Your task to perform on an android device: open sync settings in chrome Image 0: 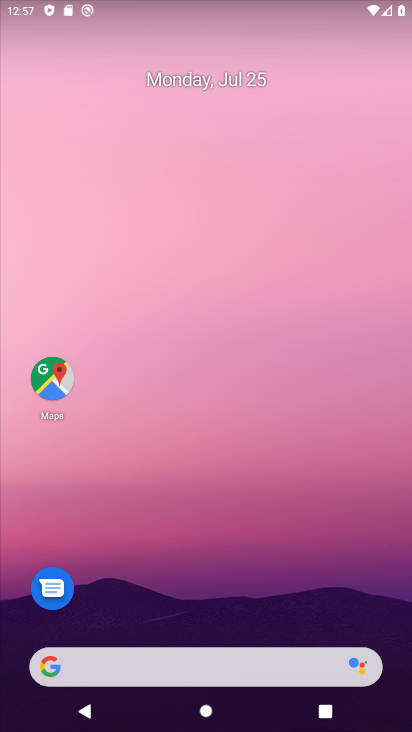
Step 0: click (297, 210)
Your task to perform on an android device: open sync settings in chrome Image 1: 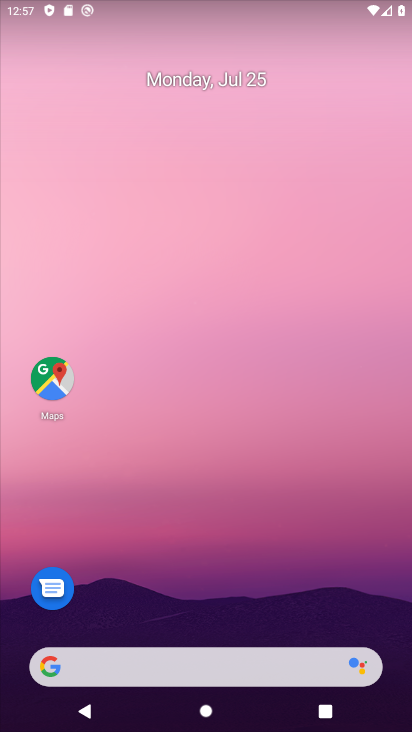
Step 1: press back button
Your task to perform on an android device: open sync settings in chrome Image 2: 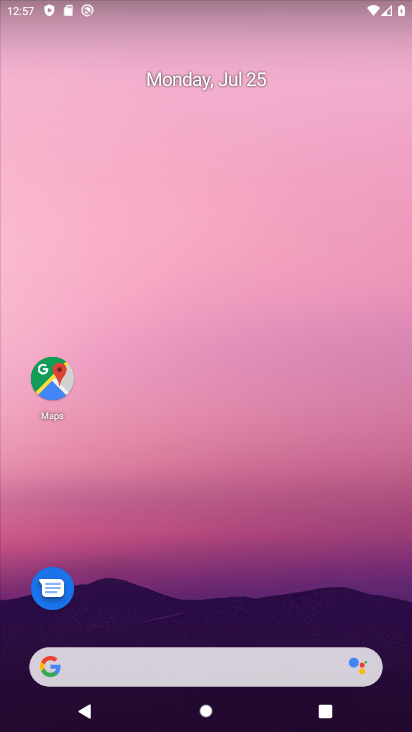
Step 2: drag from (209, 335) to (208, 118)
Your task to perform on an android device: open sync settings in chrome Image 3: 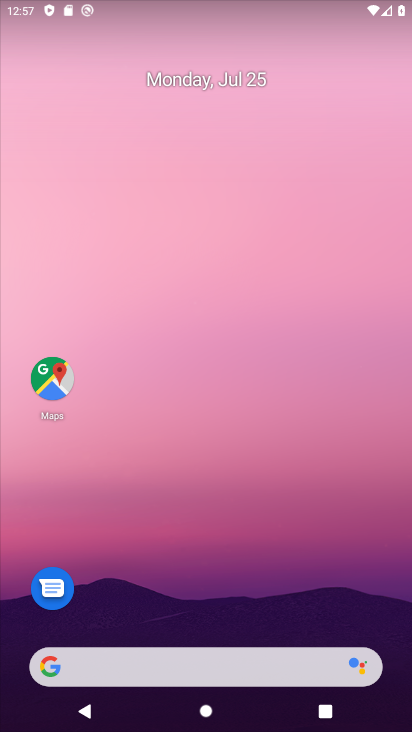
Step 3: drag from (311, 422) to (221, 40)
Your task to perform on an android device: open sync settings in chrome Image 4: 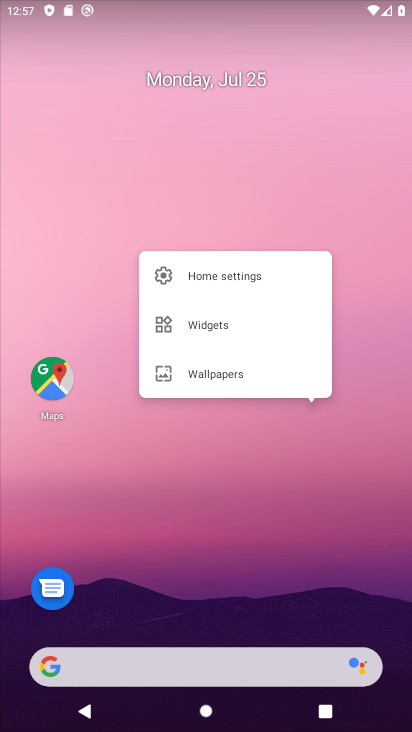
Step 4: drag from (225, 403) to (161, 16)
Your task to perform on an android device: open sync settings in chrome Image 5: 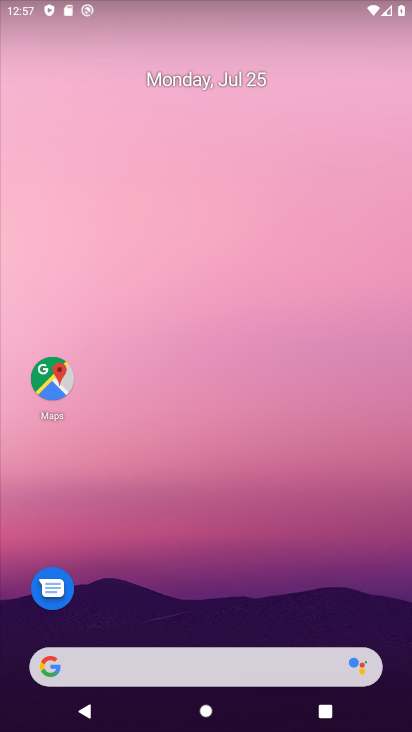
Step 5: drag from (188, 470) to (152, 145)
Your task to perform on an android device: open sync settings in chrome Image 6: 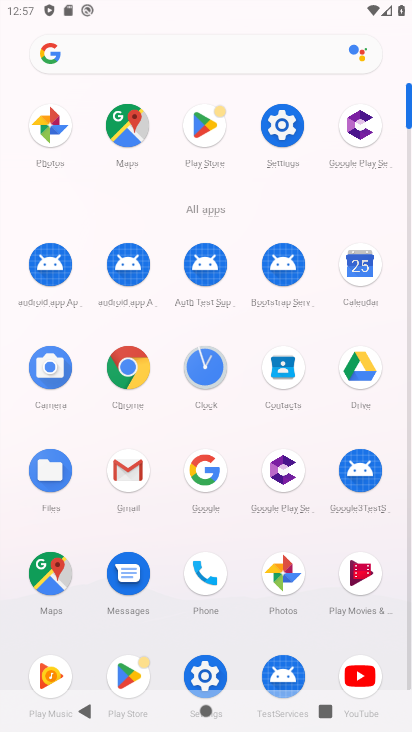
Step 6: drag from (144, 200) to (124, 56)
Your task to perform on an android device: open sync settings in chrome Image 7: 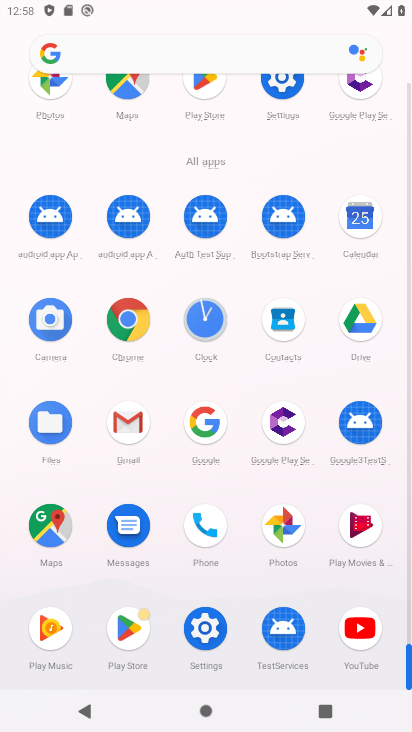
Step 7: drag from (87, 73) to (161, 175)
Your task to perform on an android device: open sync settings in chrome Image 8: 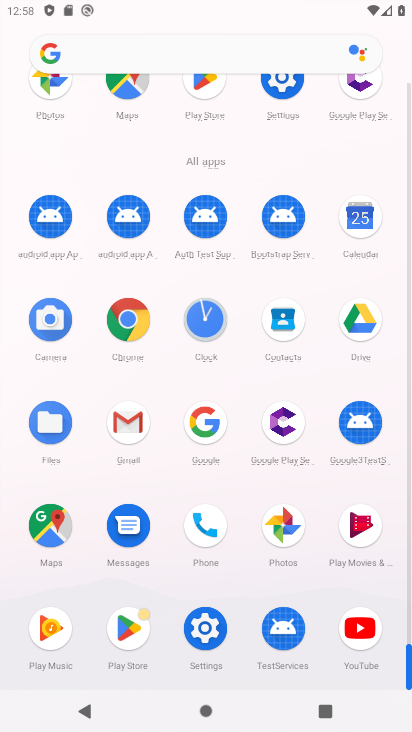
Step 8: click (141, 323)
Your task to perform on an android device: open sync settings in chrome Image 9: 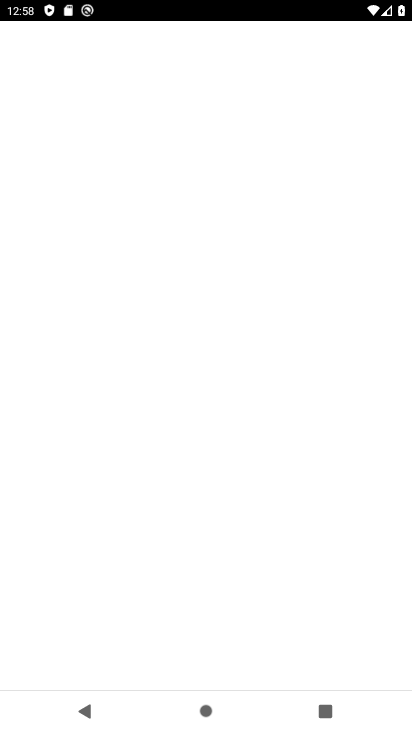
Step 9: click (108, 317)
Your task to perform on an android device: open sync settings in chrome Image 10: 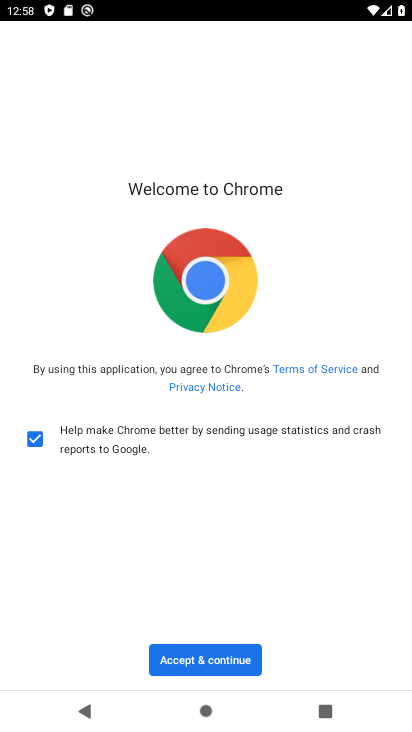
Step 10: click (202, 658)
Your task to perform on an android device: open sync settings in chrome Image 11: 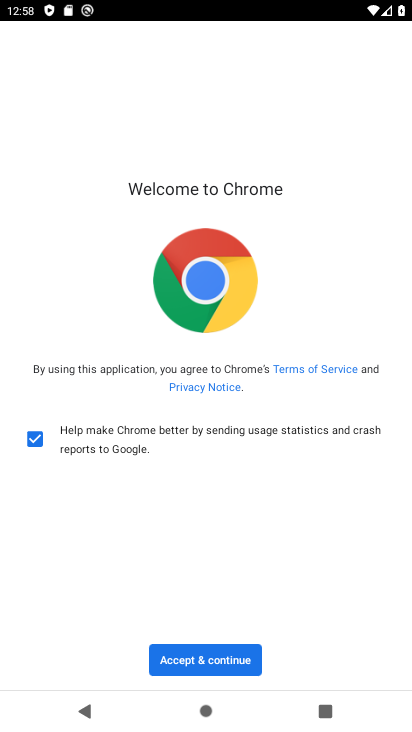
Step 11: click (206, 656)
Your task to perform on an android device: open sync settings in chrome Image 12: 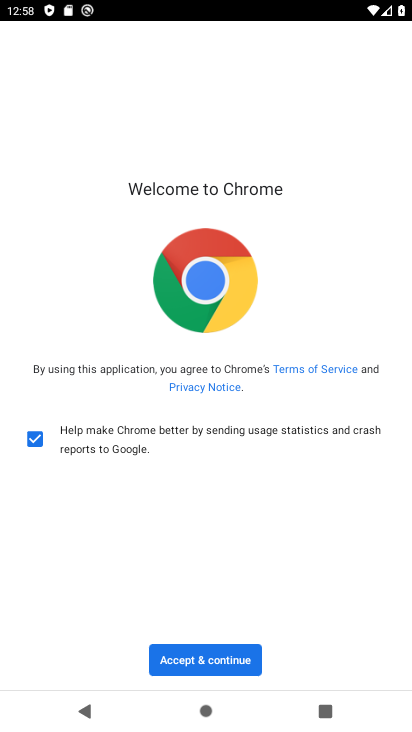
Step 12: click (206, 656)
Your task to perform on an android device: open sync settings in chrome Image 13: 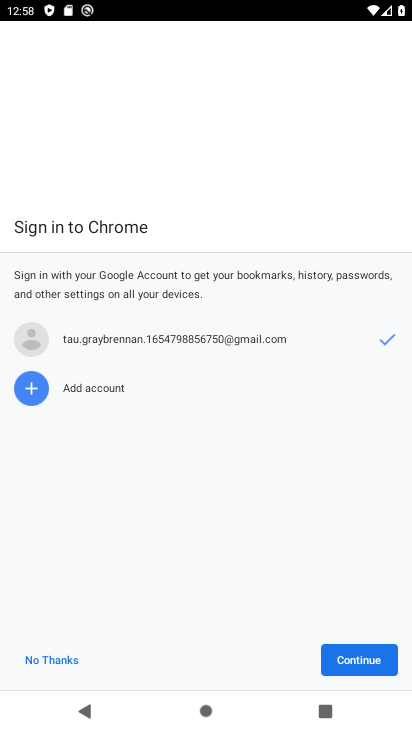
Step 13: click (202, 657)
Your task to perform on an android device: open sync settings in chrome Image 14: 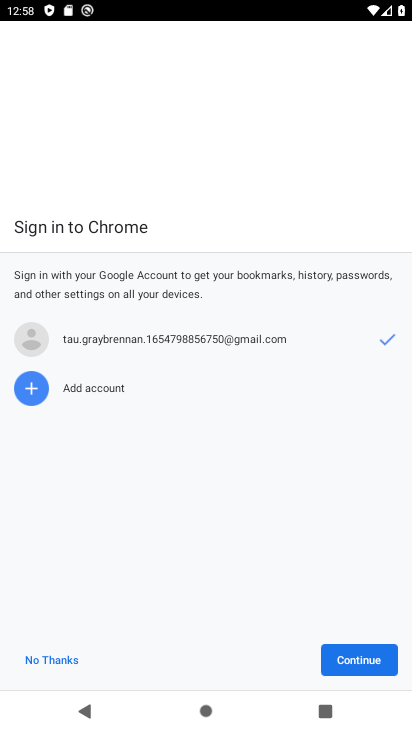
Step 14: click (220, 652)
Your task to perform on an android device: open sync settings in chrome Image 15: 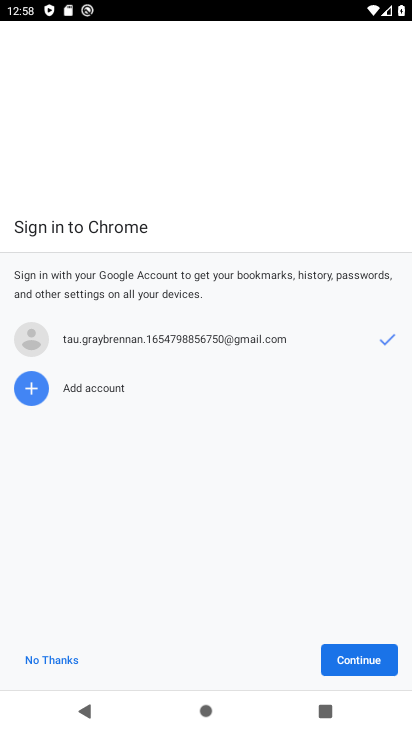
Step 15: click (48, 664)
Your task to perform on an android device: open sync settings in chrome Image 16: 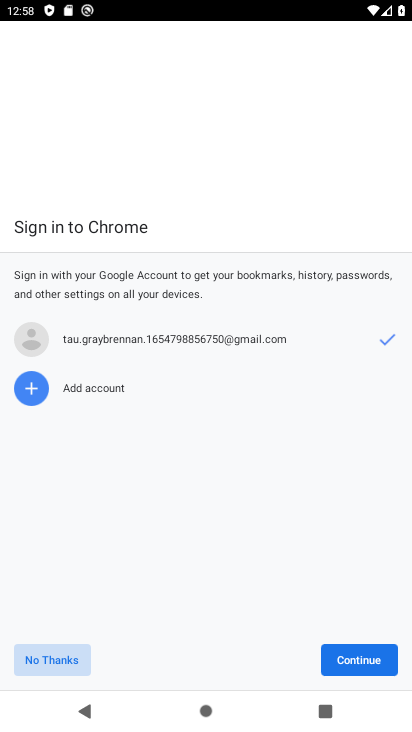
Step 16: click (48, 659)
Your task to perform on an android device: open sync settings in chrome Image 17: 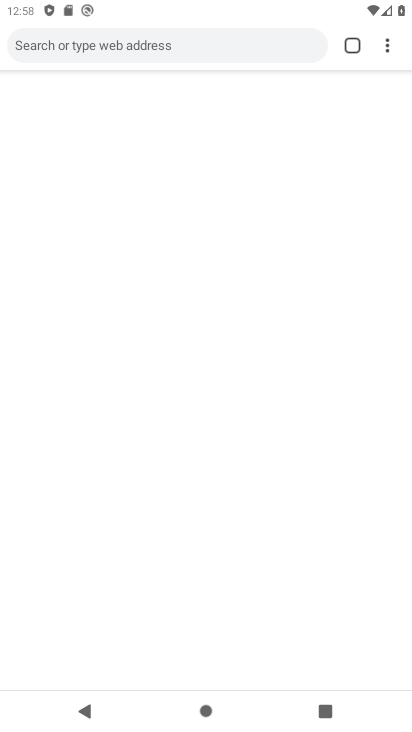
Step 17: click (58, 653)
Your task to perform on an android device: open sync settings in chrome Image 18: 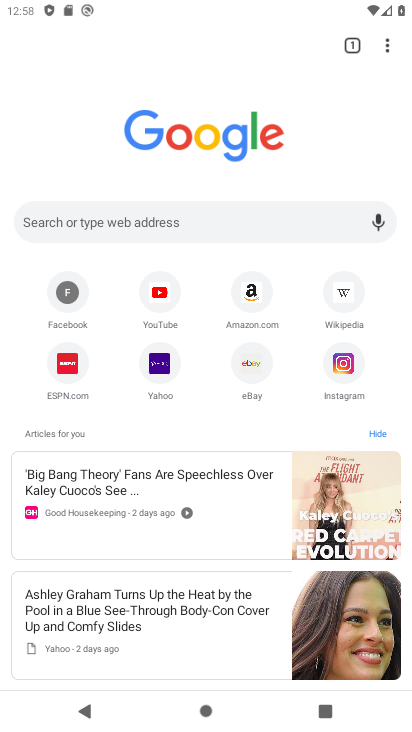
Step 18: click (61, 651)
Your task to perform on an android device: open sync settings in chrome Image 19: 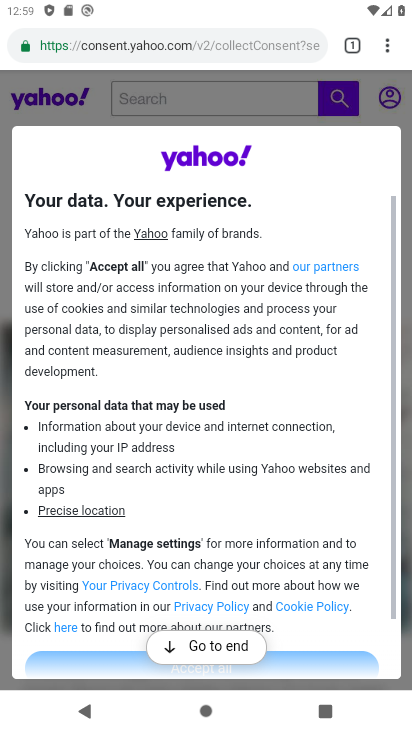
Step 19: task complete